Your task to perform on an android device: turn off wifi Image 0: 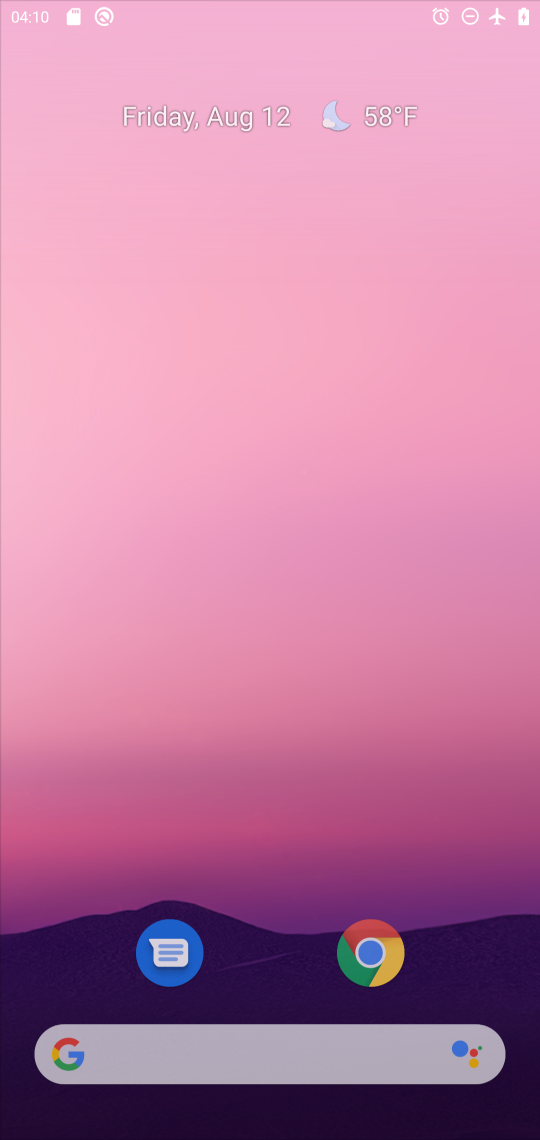
Step 0: press home button
Your task to perform on an android device: turn off wifi Image 1: 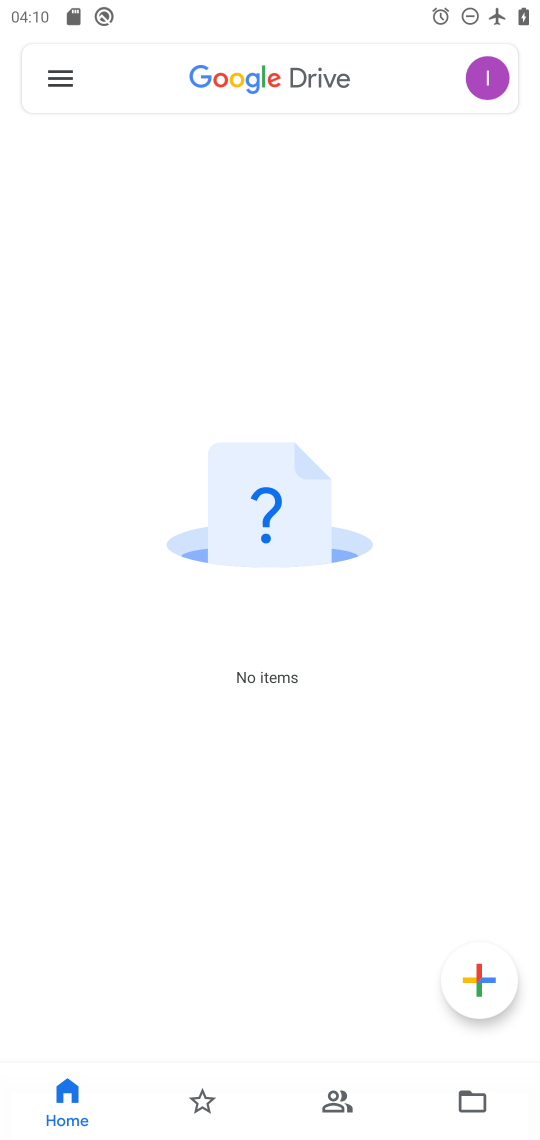
Step 1: press home button
Your task to perform on an android device: turn off wifi Image 2: 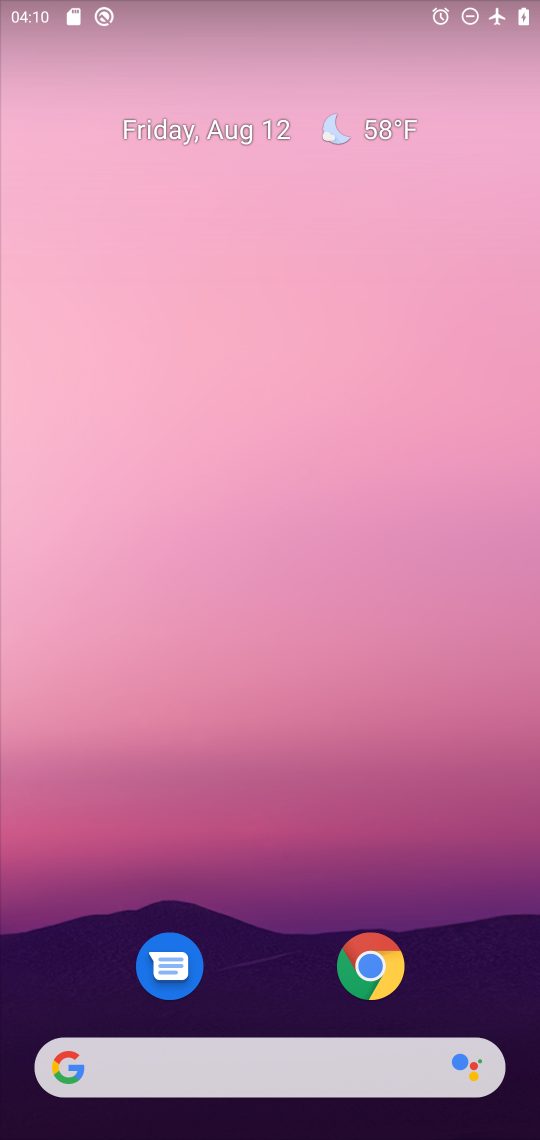
Step 2: drag from (250, 815) to (311, 124)
Your task to perform on an android device: turn off wifi Image 3: 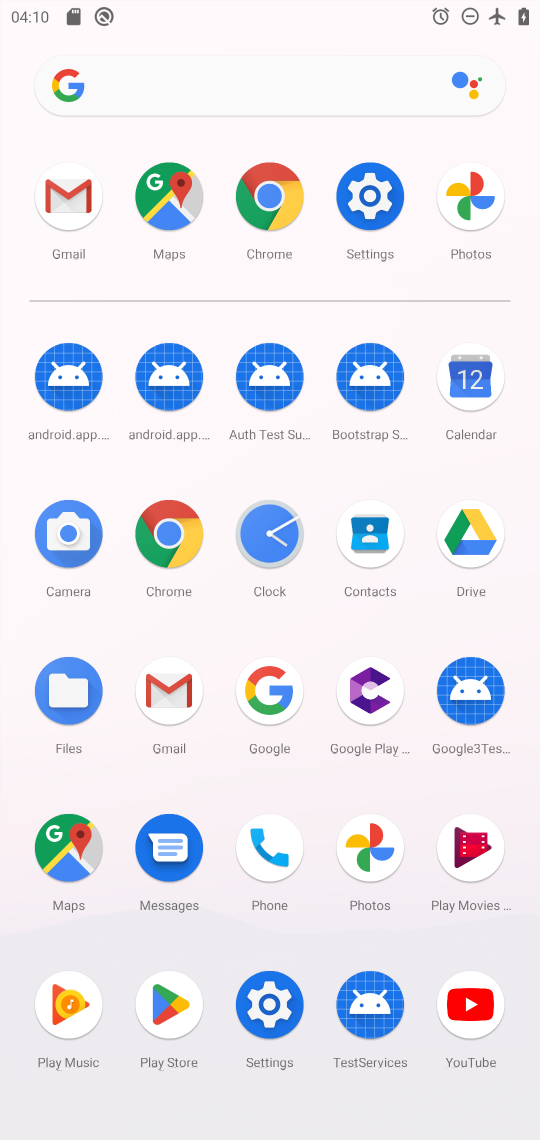
Step 3: click (376, 205)
Your task to perform on an android device: turn off wifi Image 4: 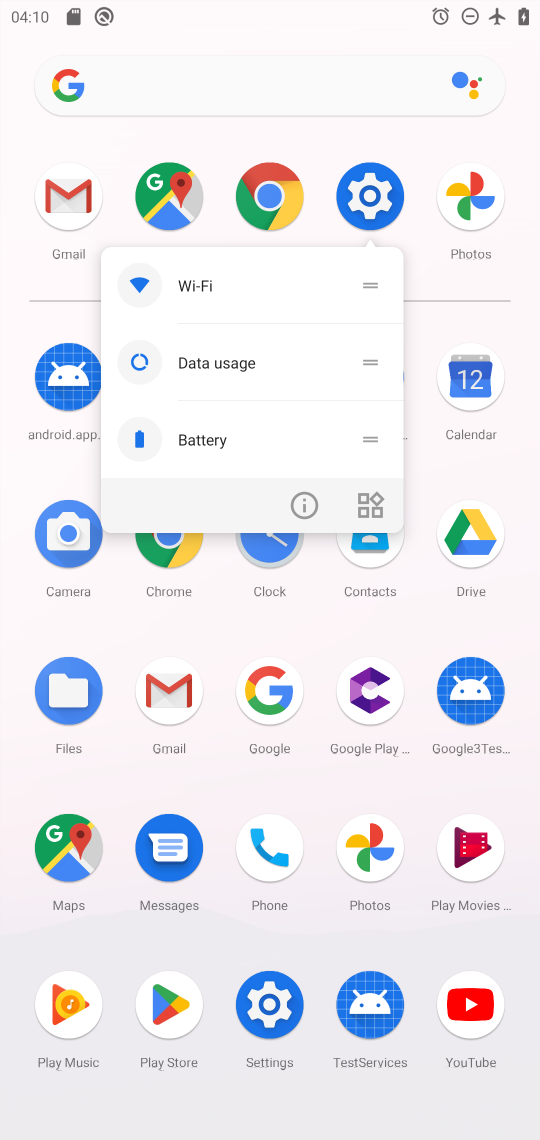
Step 4: click (376, 205)
Your task to perform on an android device: turn off wifi Image 5: 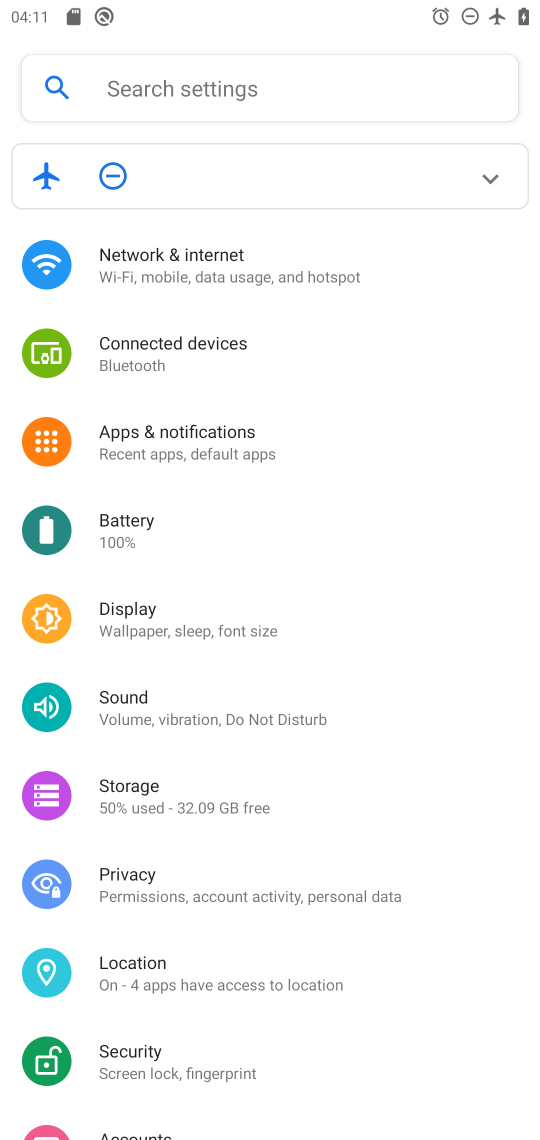
Step 5: click (203, 275)
Your task to perform on an android device: turn off wifi Image 6: 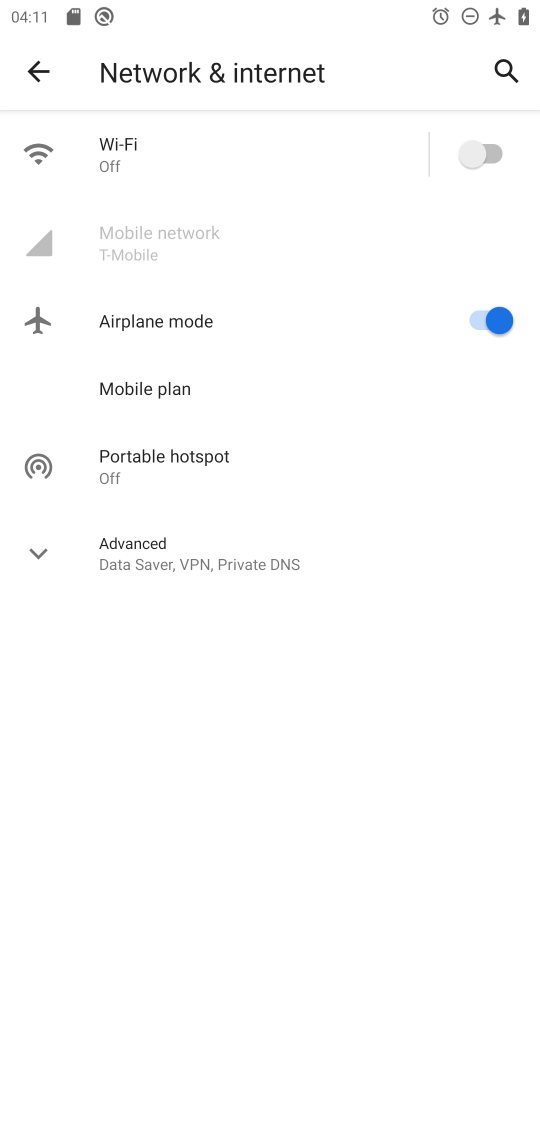
Step 6: task complete